Your task to perform on an android device: Open Chrome and go to settings Image 0: 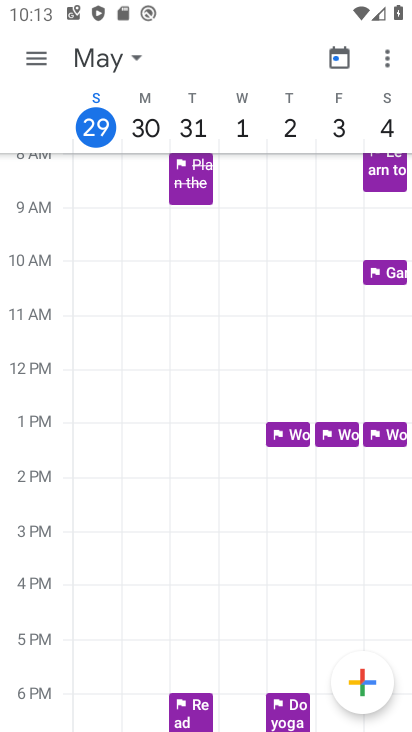
Step 0: press home button
Your task to perform on an android device: Open Chrome and go to settings Image 1: 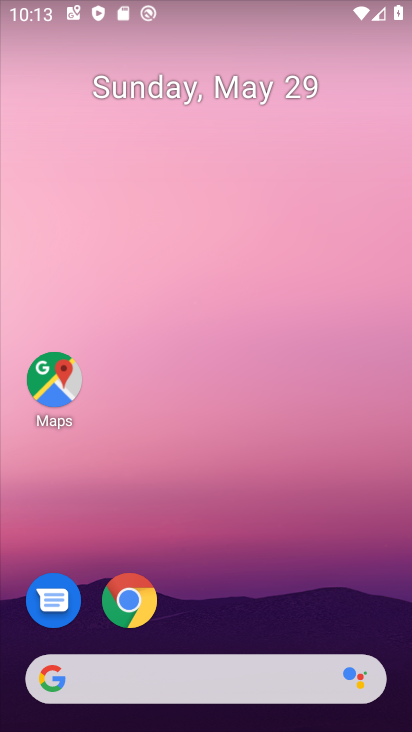
Step 1: click (127, 607)
Your task to perform on an android device: Open Chrome and go to settings Image 2: 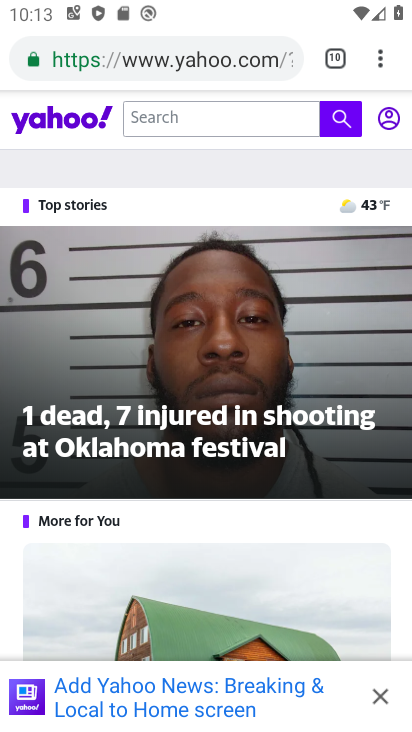
Step 2: click (378, 59)
Your task to perform on an android device: Open Chrome and go to settings Image 3: 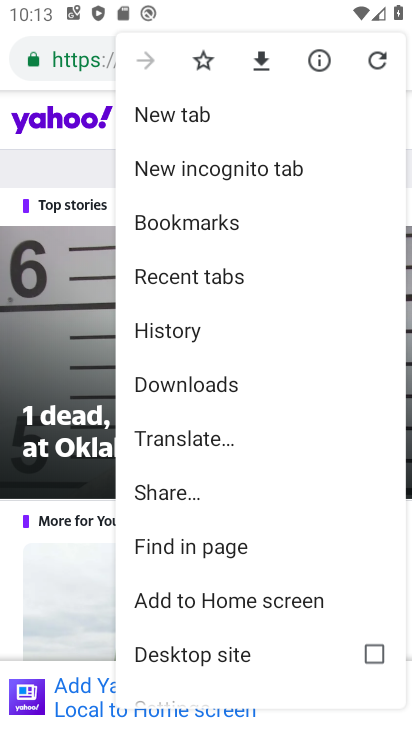
Step 3: drag from (219, 663) to (232, 200)
Your task to perform on an android device: Open Chrome and go to settings Image 4: 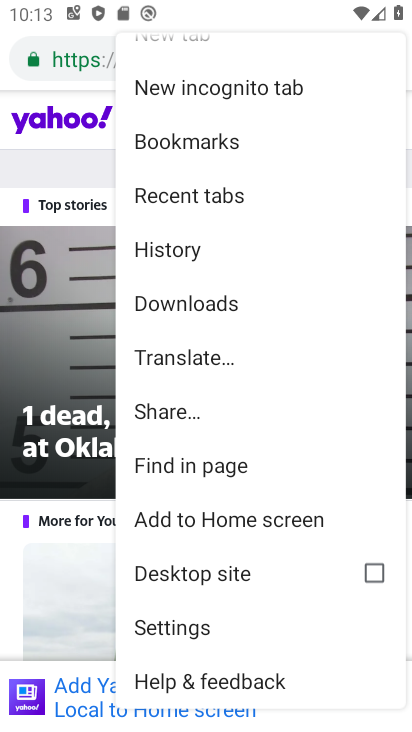
Step 4: click (171, 628)
Your task to perform on an android device: Open Chrome and go to settings Image 5: 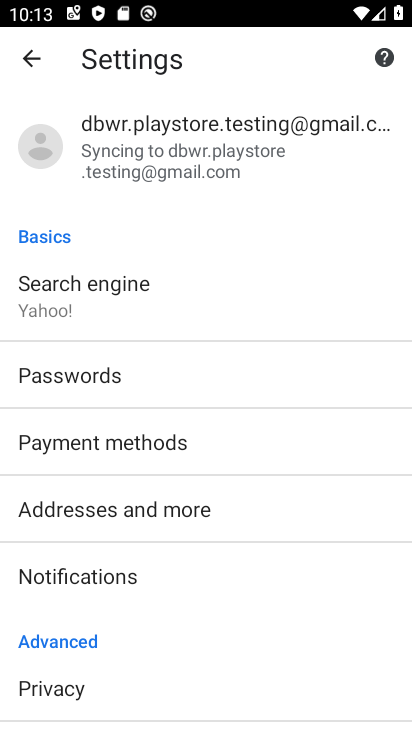
Step 5: task complete